Your task to perform on an android device: Open calendar and show me the second week of next month Image 0: 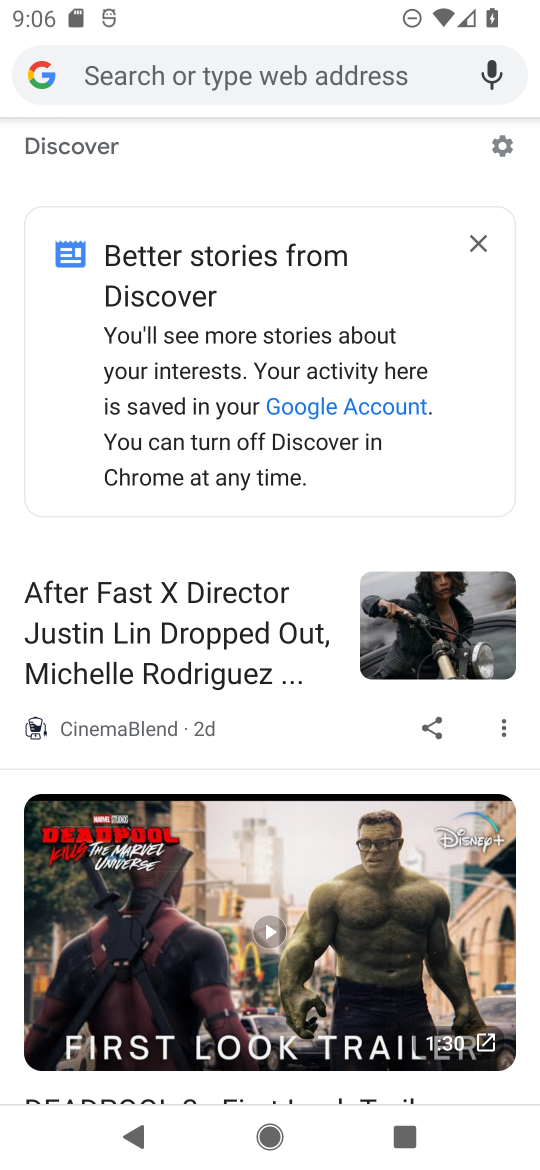
Step 0: press home button
Your task to perform on an android device: Open calendar and show me the second week of next month Image 1: 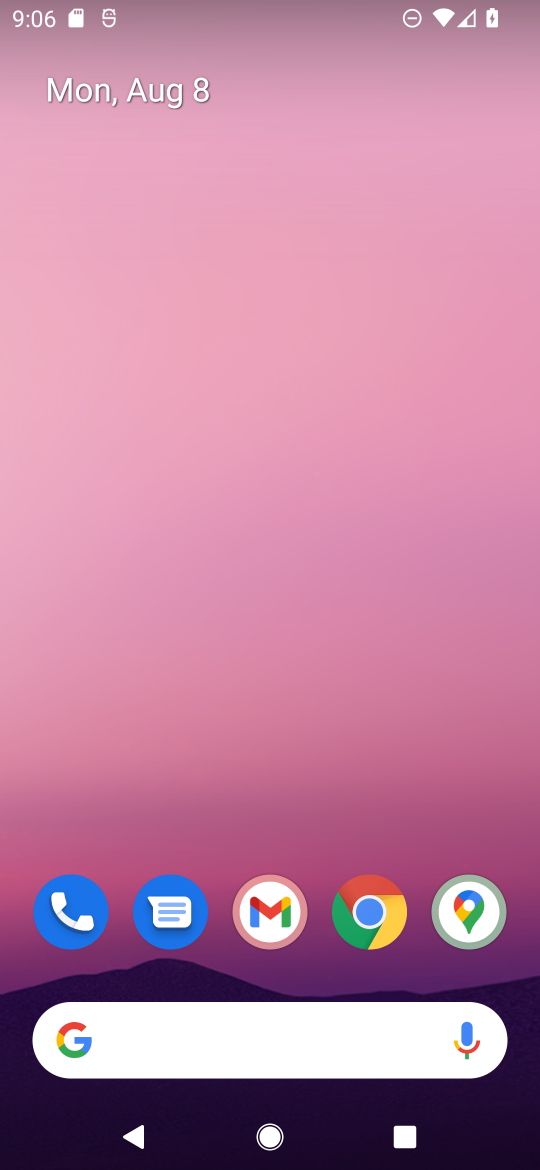
Step 1: drag from (492, 966) to (333, 207)
Your task to perform on an android device: Open calendar and show me the second week of next month Image 2: 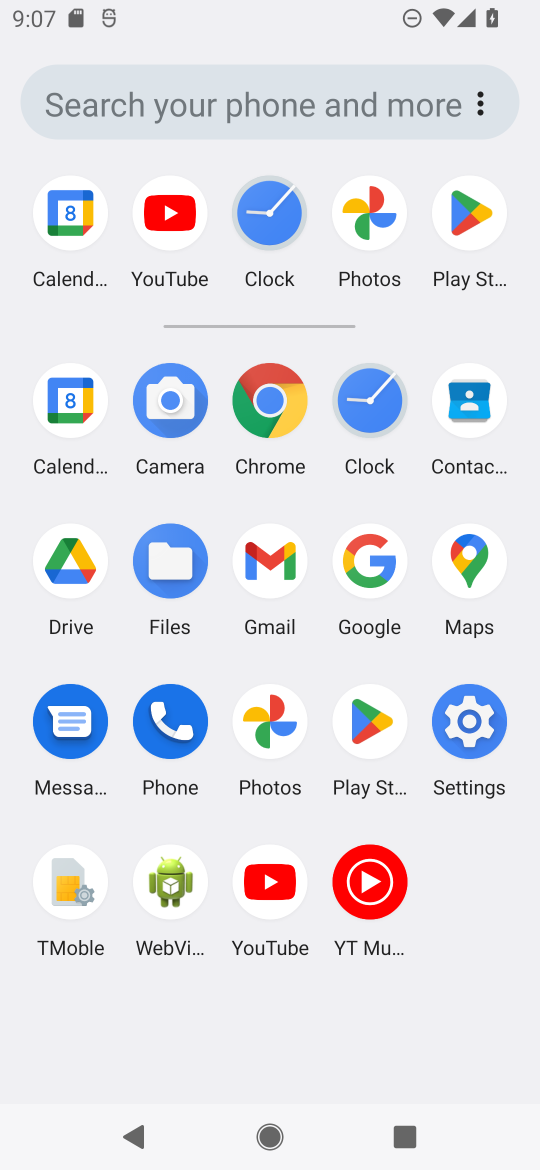
Step 2: click (64, 437)
Your task to perform on an android device: Open calendar and show me the second week of next month Image 3: 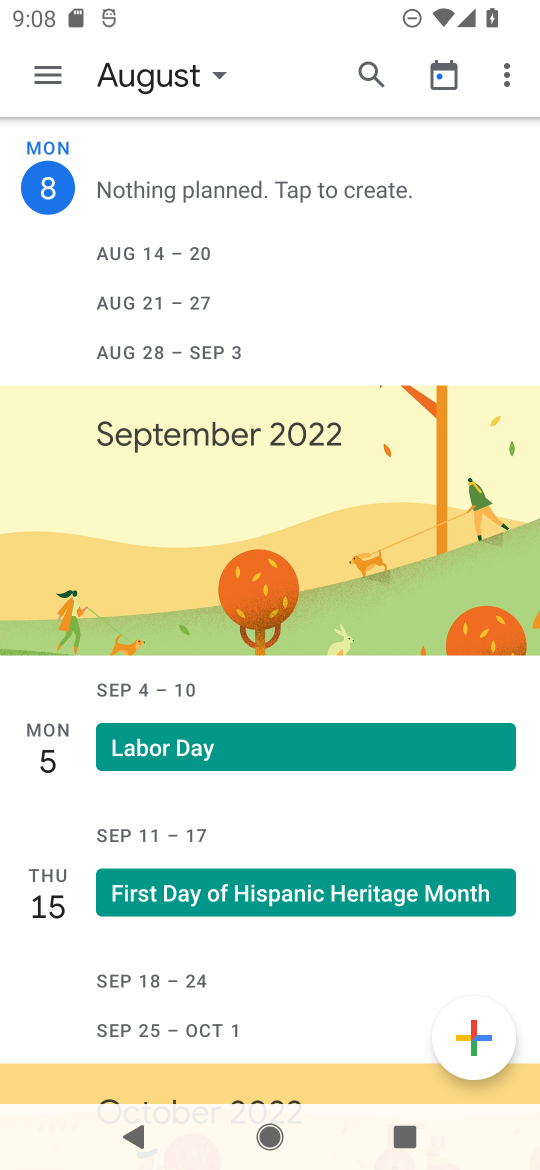
Step 3: click (135, 78)
Your task to perform on an android device: Open calendar and show me the second week of next month Image 4: 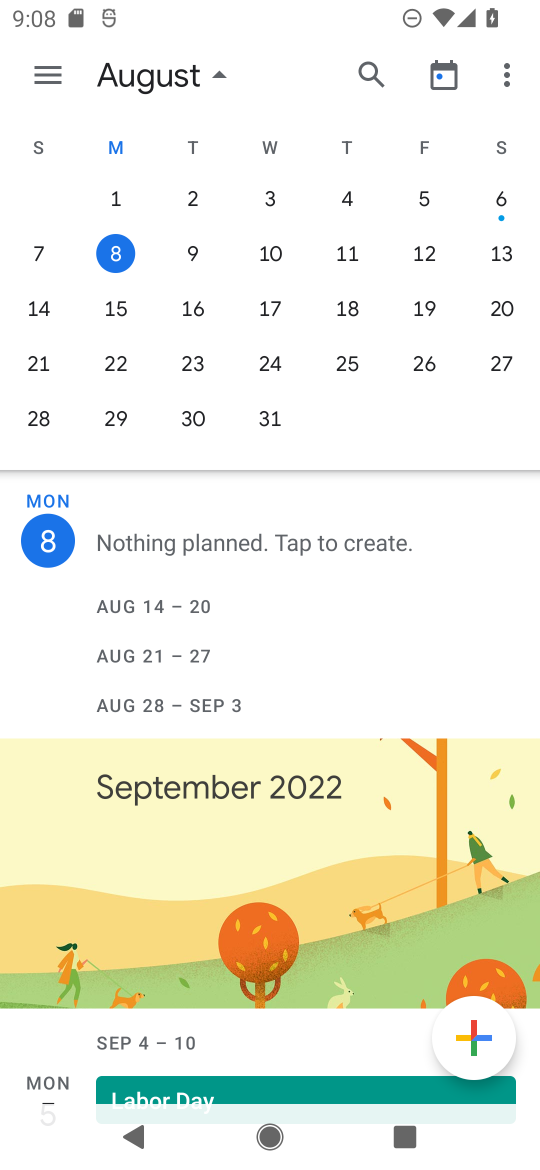
Step 4: drag from (497, 243) to (28, 273)
Your task to perform on an android device: Open calendar and show me the second week of next month Image 5: 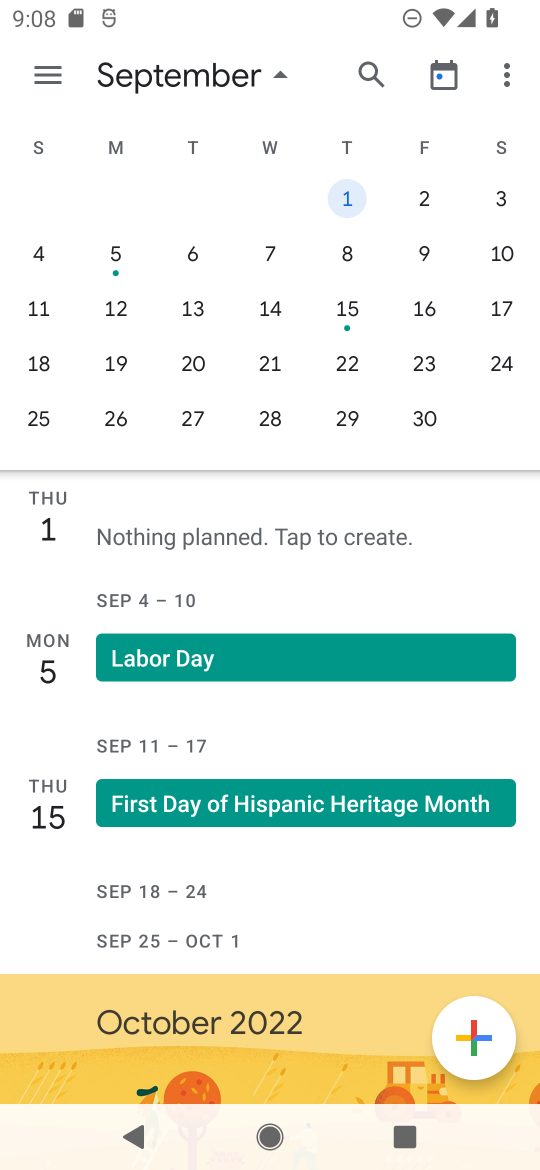
Step 5: click (44, 300)
Your task to perform on an android device: Open calendar and show me the second week of next month Image 6: 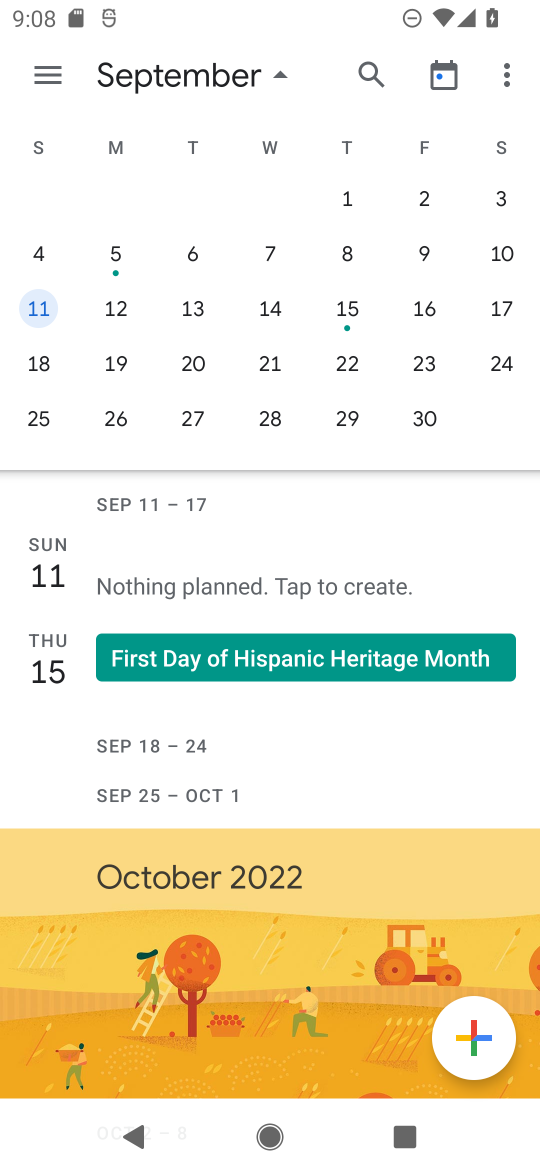
Step 6: task complete